Your task to perform on an android device: see tabs open on other devices in the chrome app Image 0: 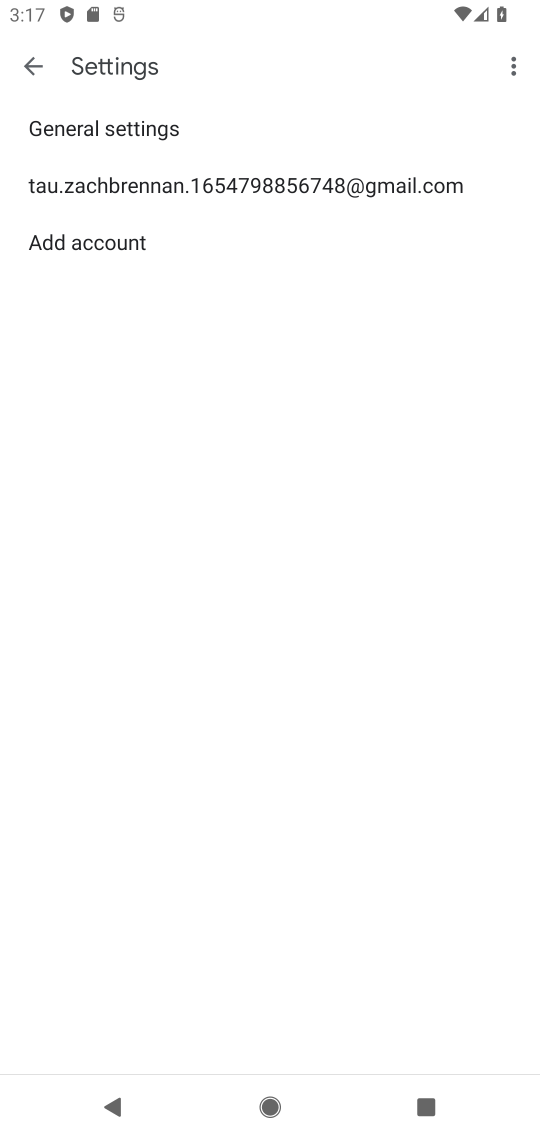
Step 0: press home button
Your task to perform on an android device: see tabs open on other devices in the chrome app Image 1: 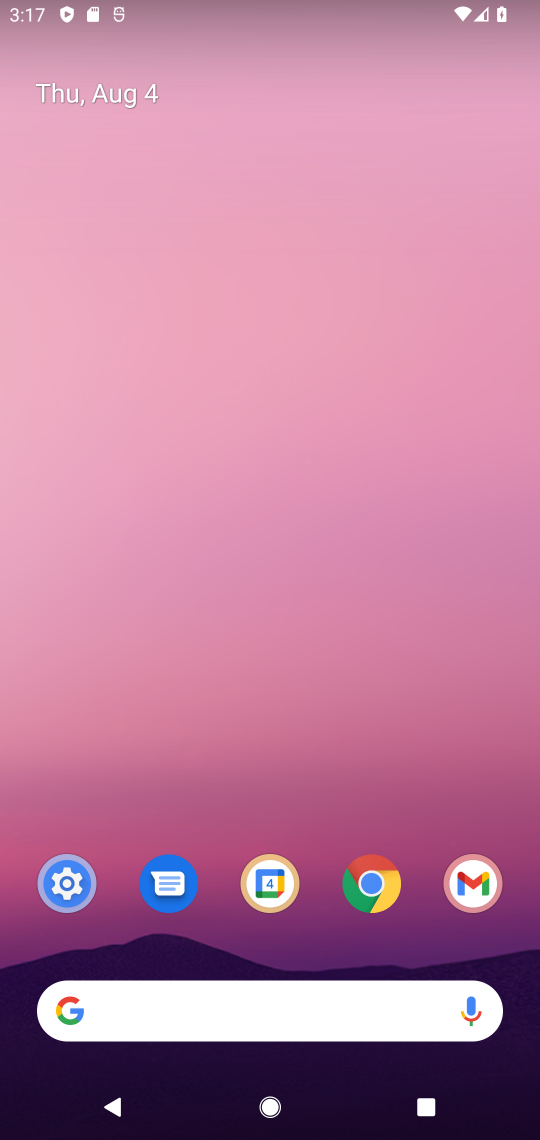
Step 1: drag from (410, 850) to (222, 75)
Your task to perform on an android device: see tabs open on other devices in the chrome app Image 2: 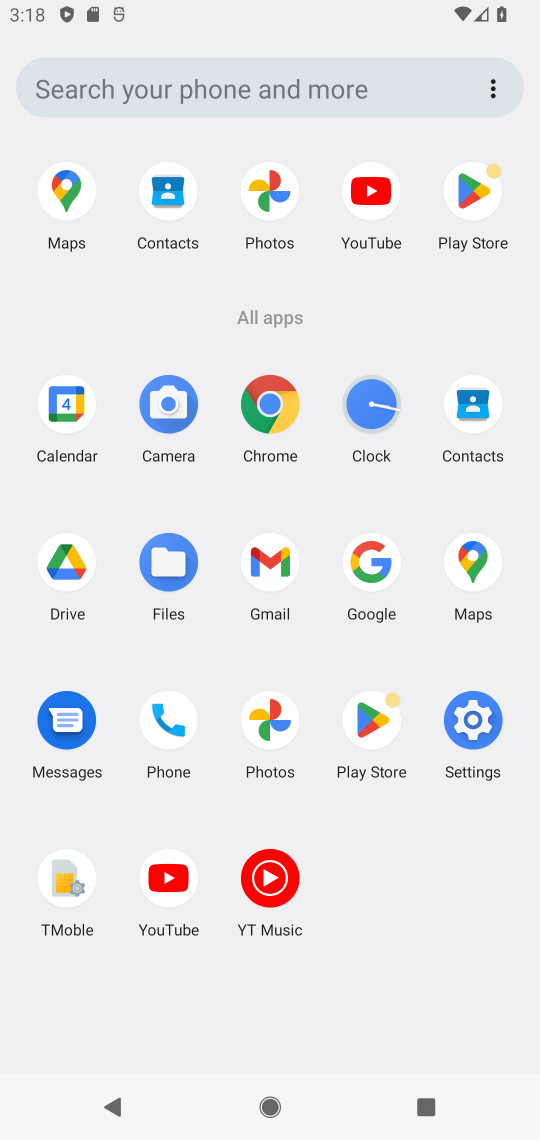
Step 2: click (277, 416)
Your task to perform on an android device: see tabs open on other devices in the chrome app Image 3: 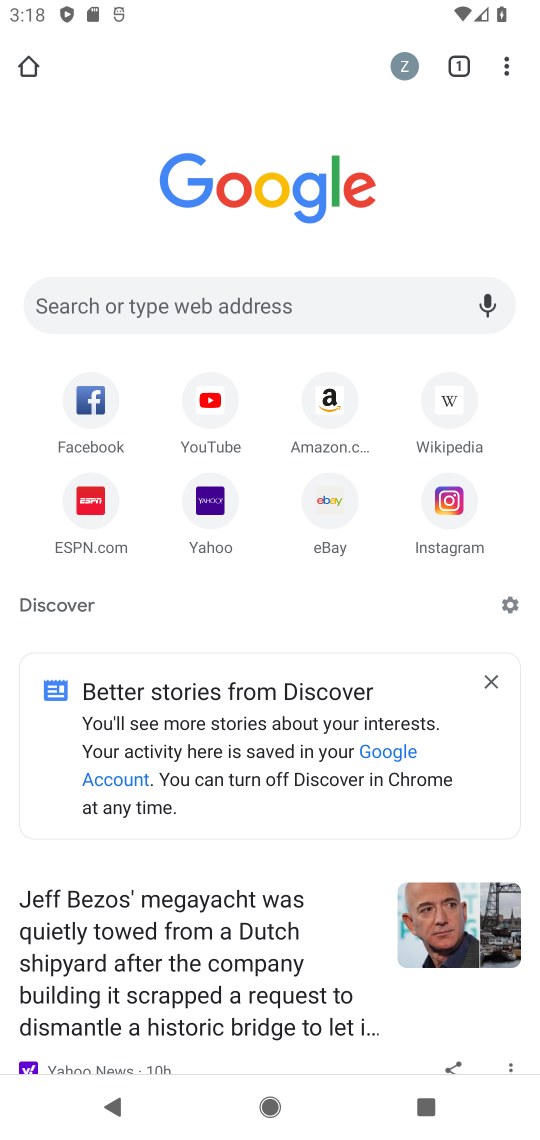
Step 3: task complete